Your task to perform on an android device: toggle airplane mode Image 0: 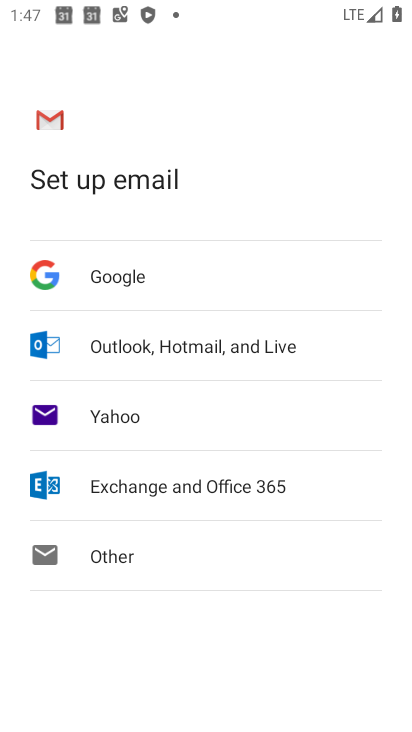
Step 0: press home button
Your task to perform on an android device: toggle airplane mode Image 1: 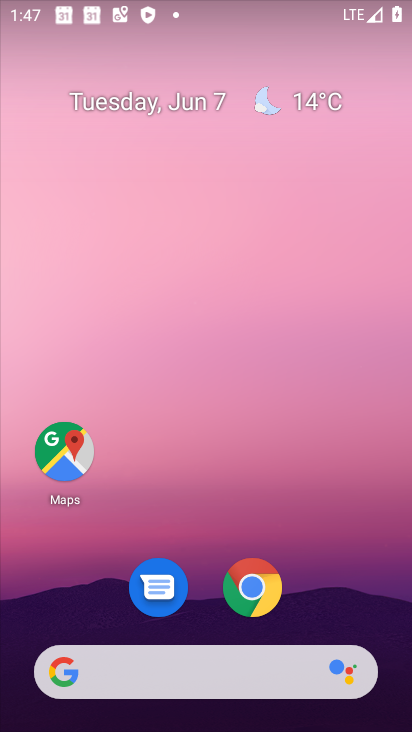
Step 1: drag from (311, 665) to (327, 180)
Your task to perform on an android device: toggle airplane mode Image 2: 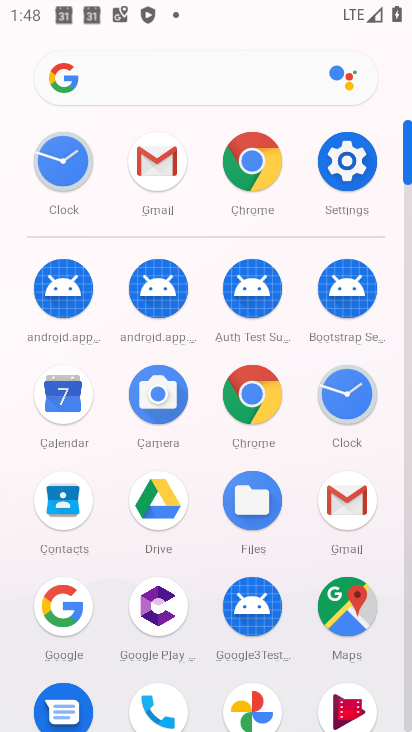
Step 2: click (351, 174)
Your task to perform on an android device: toggle airplane mode Image 3: 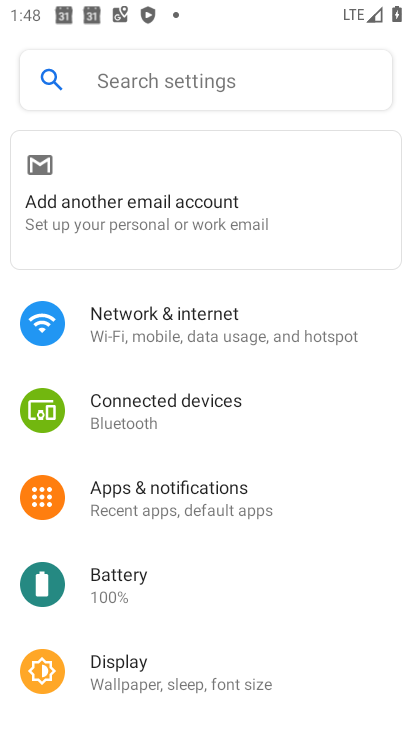
Step 3: click (215, 329)
Your task to perform on an android device: toggle airplane mode Image 4: 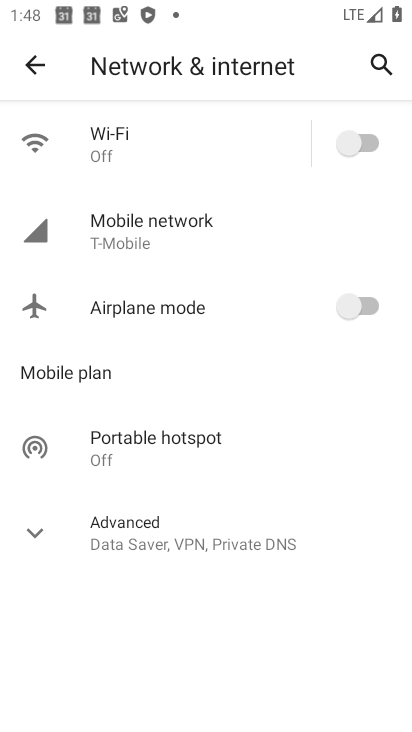
Step 4: click (203, 314)
Your task to perform on an android device: toggle airplane mode Image 5: 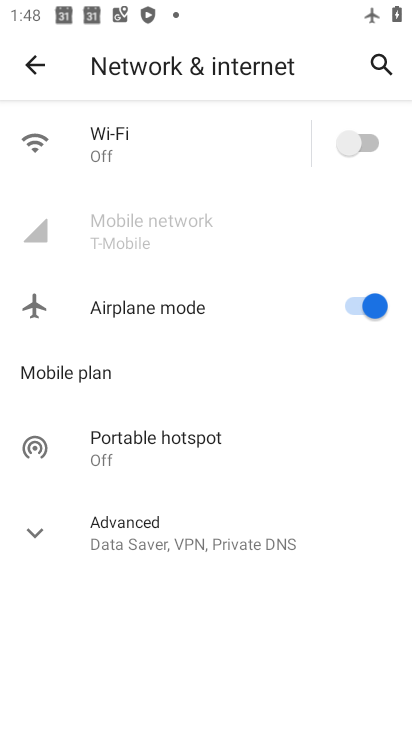
Step 5: task complete